Your task to perform on an android device: When is my next meeting? Image 0: 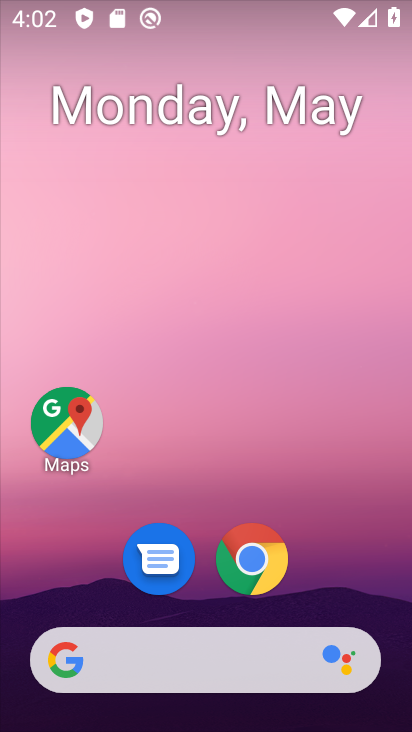
Step 0: drag from (314, 351) to (296, 10)
Your task to perform on an android device: When is my next meeting? Image 1: 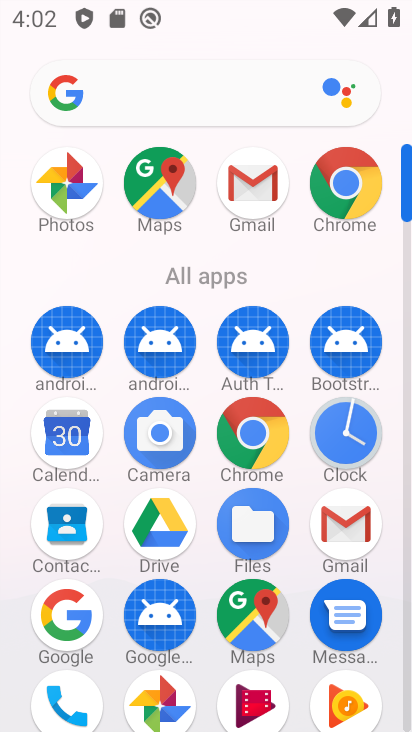
Step 1: drag from (242, 569) to (257, 91)
Your task to perform on an android device: When is my next meeting? Image 2: 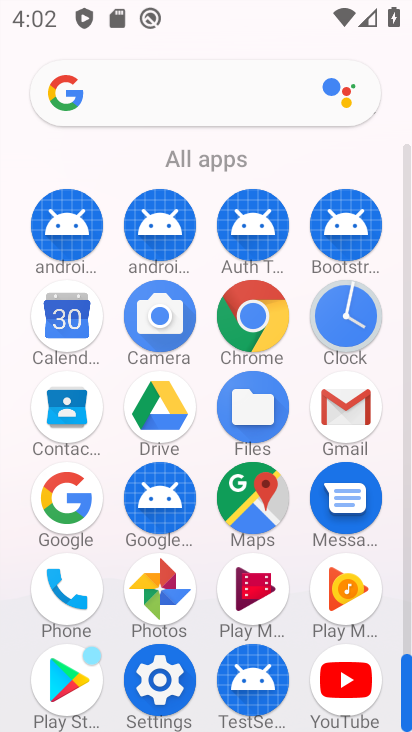
Step 2: click (58, 320)
Your task to perform on an android device: When is my next meeting? Image 3: 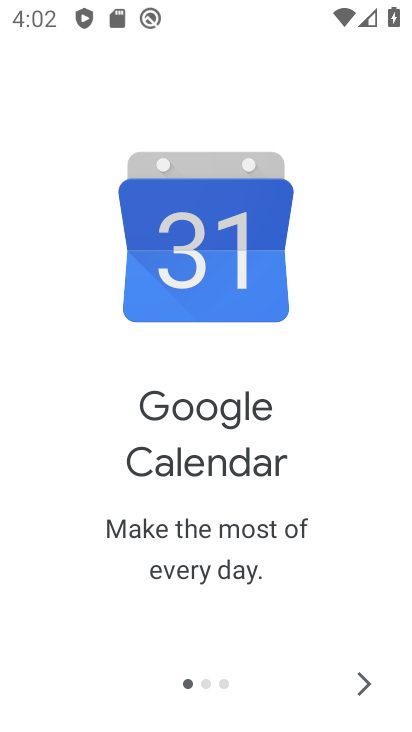
Step 3: click (361, 678)
Your task to perform on an android device: When is my next meeting? Image 4: 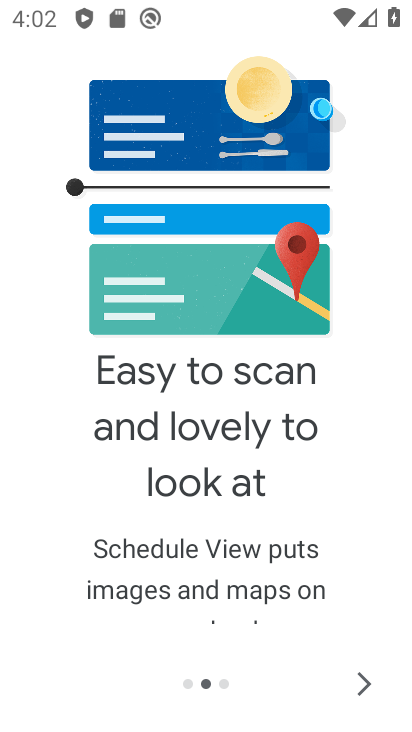
Step 4: click (355, 677)
Your task to perform on an android device: When is my next meeting? Image 5: 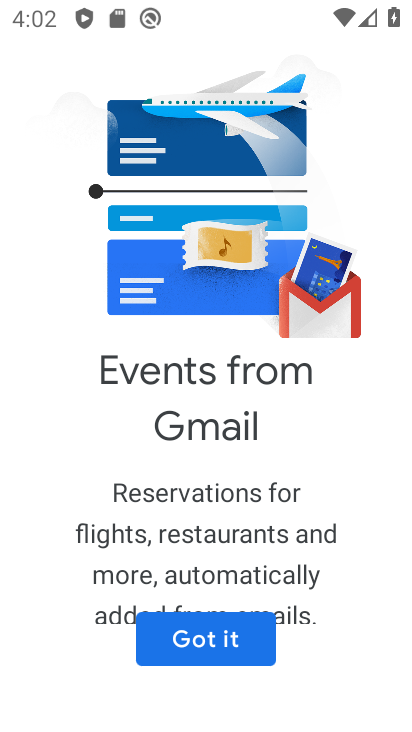
Step 5: click (252, 648)
Your task to perform on an android device: When is my next meeting? Image 6: 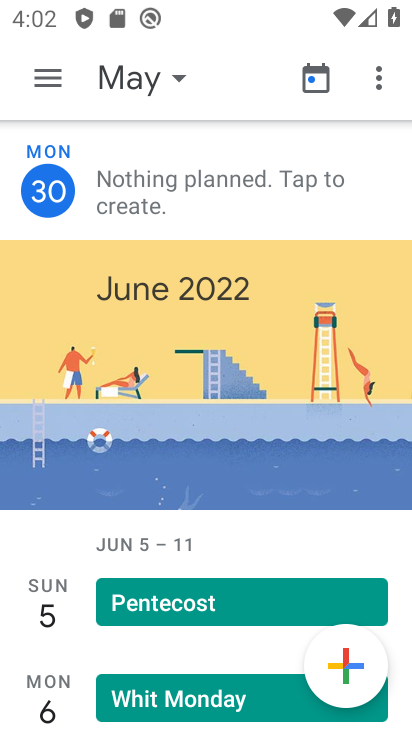
Step 6: click (162, 73)
Your task to perform on an android device: When is my next meeting? Image 7: 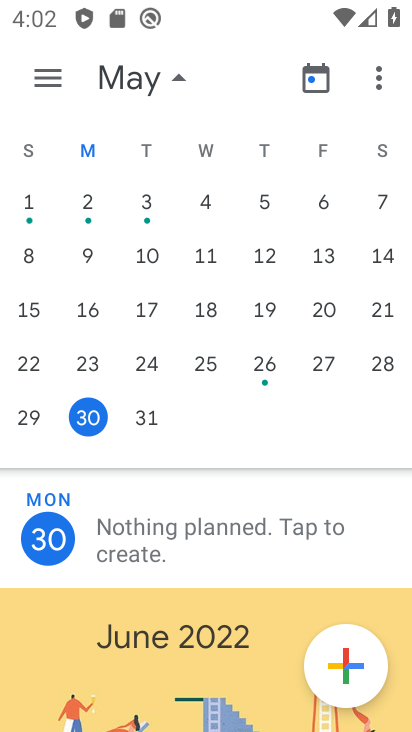
Step 7: click (148, 414)
Your task to perform on an android device: When is my next meeting? Image 8: 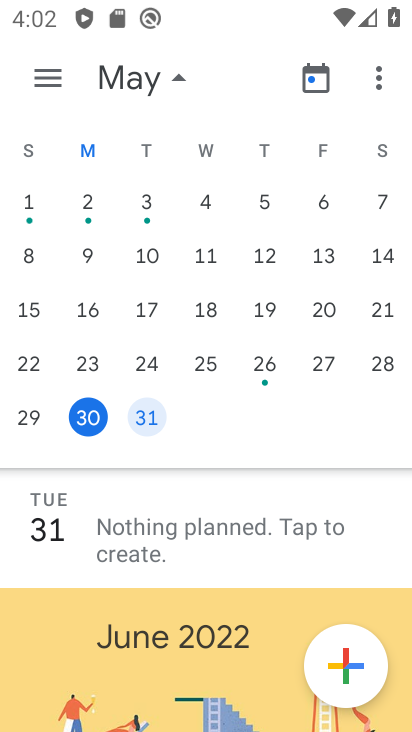
Step 8: task complete